Your task to perform on an android device: turn off location Image 0: 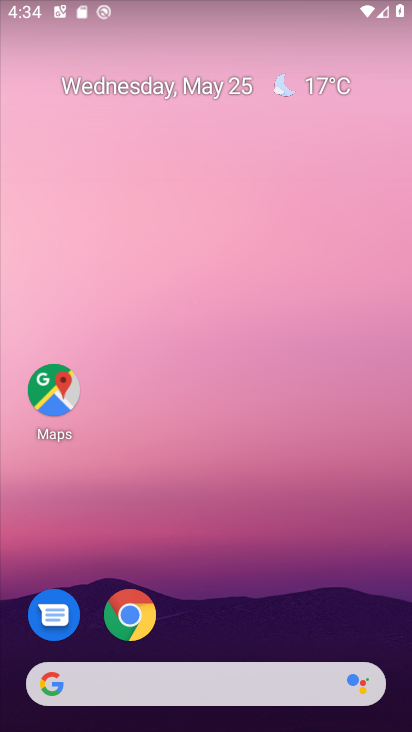
Step 0: drag from (252, 528) to (222, 96)
Your task to perform on an android device: turn off location Image 1: 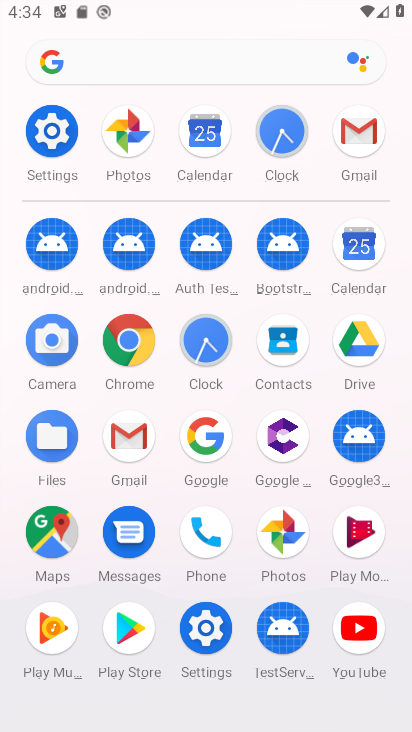
Step 1: click (49, 137)
Your task to perform on an android device: turn off location Image 2: 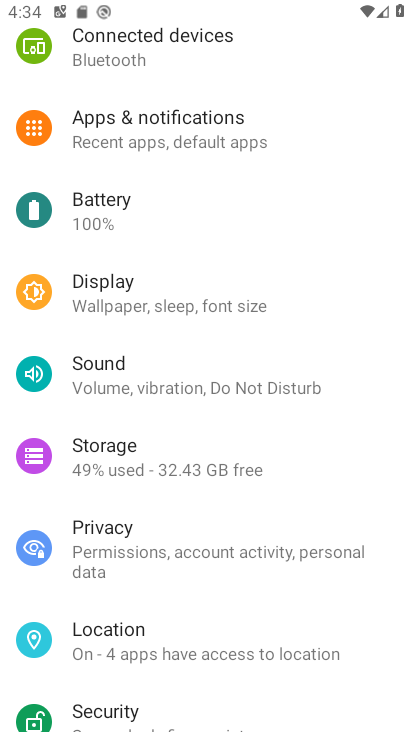
Step 2: click (198, 609)
Your task to perform on an android device: turn off location Image 3: 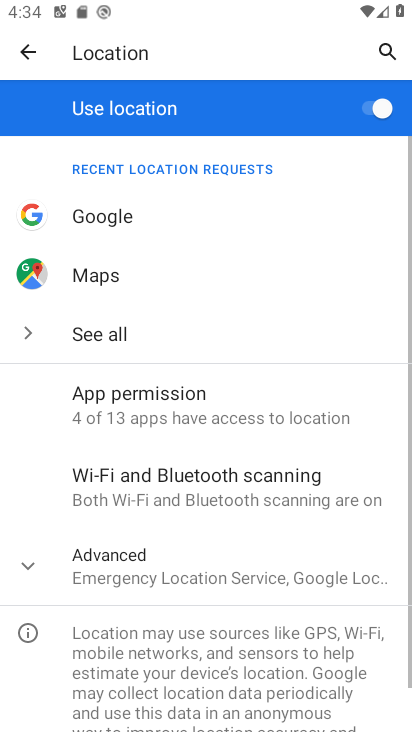
Step 3: click (373, 101)
Your task to perform on an android device: turn off location Image 4: 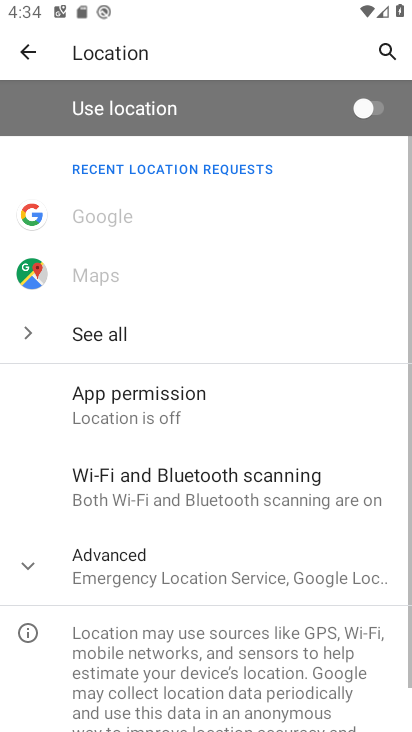
Step 4: task complete